Your task to perform on an android device: open app "Google Drive" (install if not already installed) Image 0: 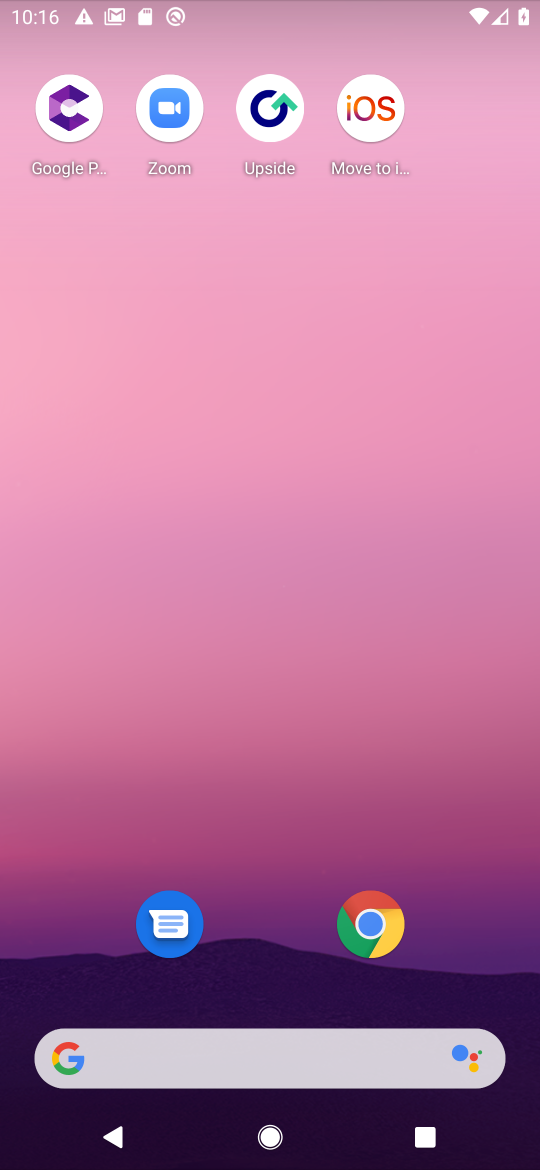
Step 0: drag from (197, 1039) to (139, 0)
Your task to perform on an android device: open app "Google Drive" (install if not already installed) Image 1: 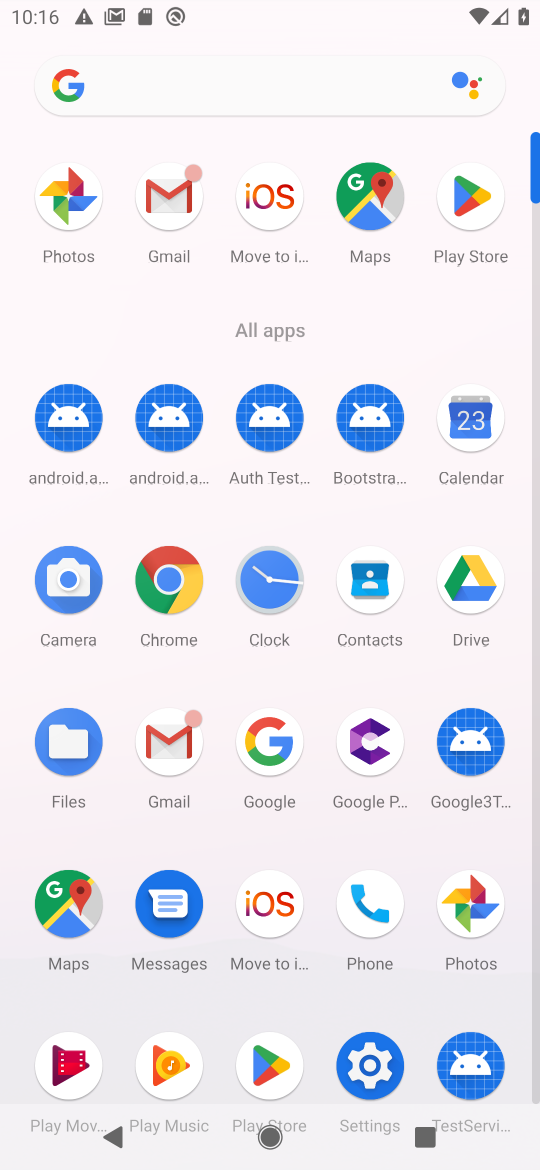
Step 1: click (486, 212)
Your task to perform on an android device: open app "Google Drive" (install if not already installed) Image 2: 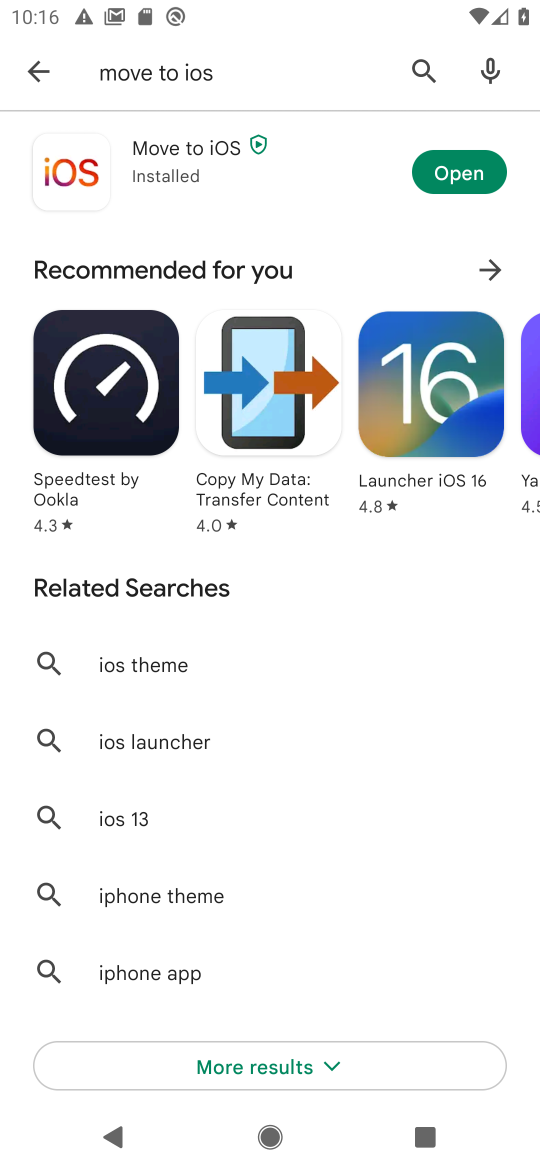
Step 2: click (424, 84)
Your task to perform on an android device: open app "Google Drive" (install if not already installed) Image 3: 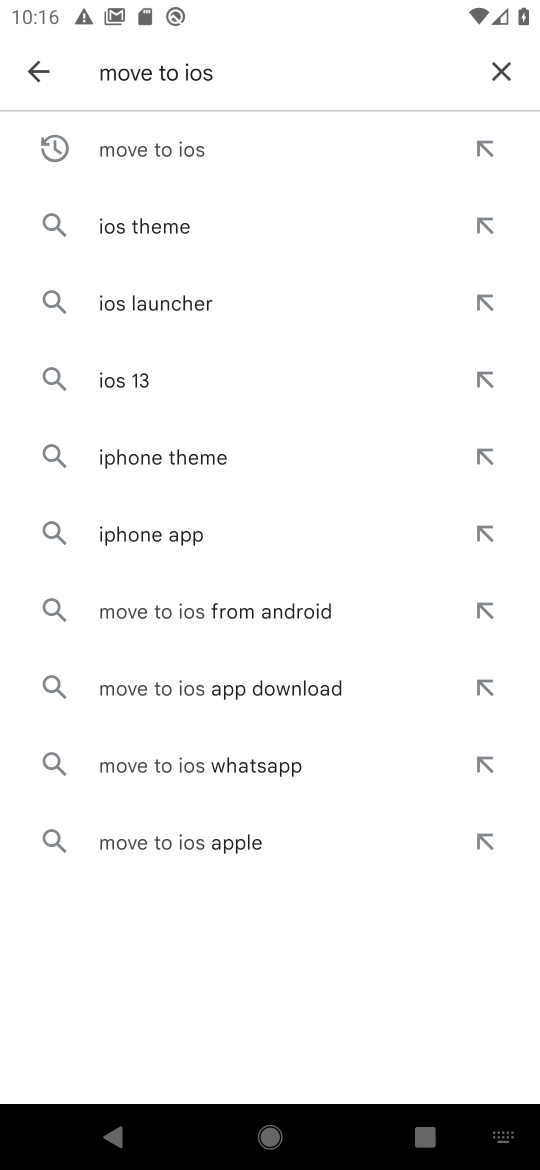
Step 3: click (506, 77)
Your task to perform on an android device: open app "Google Drive" (install if not already installed) Image 4: 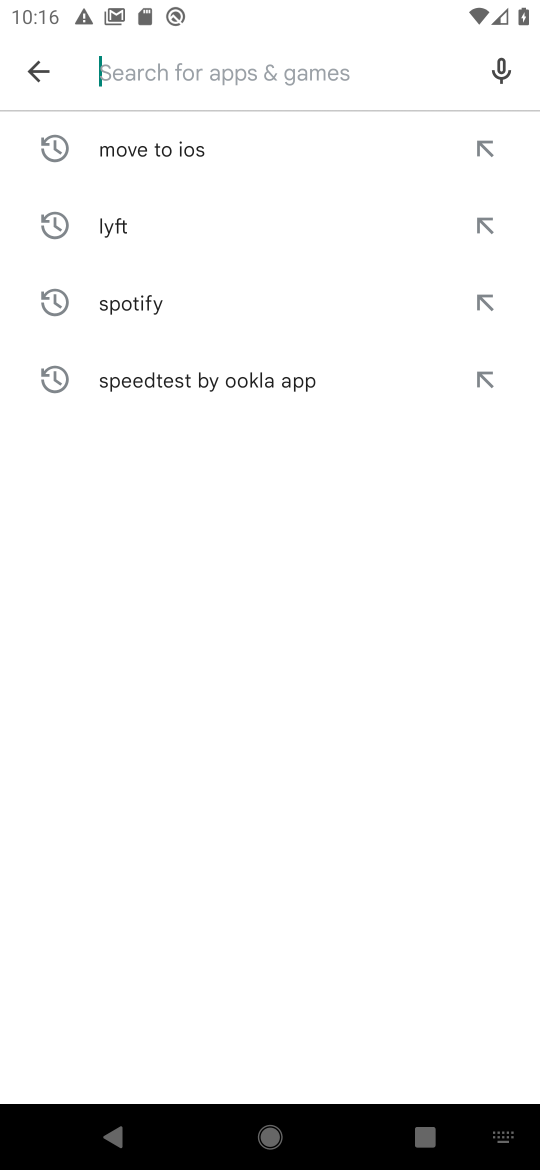
Step 4: type "google drive"
Your task to perform on an android device: open app "Google Drive" (install if not already installed) Image 5: 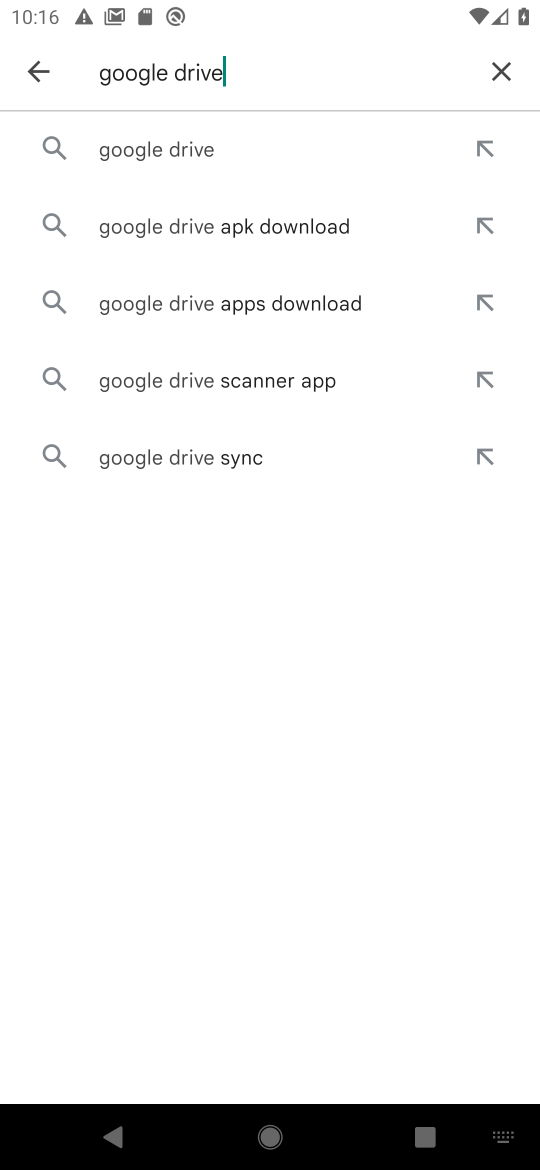
Step 5: click (211, 152)
Your task to perform on an android device: open app "Google Drive" (install if not already installed) Image 6: 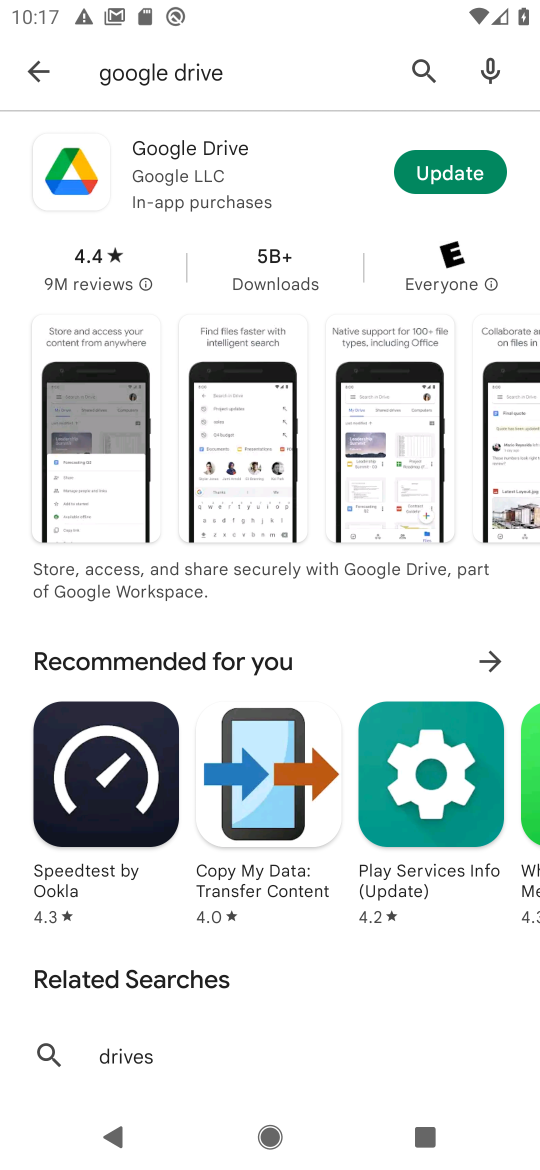
Step 6: click (185, 195)
Your task to perform on an android device: open app "Google Drive" (install if not already installed) Image 7: 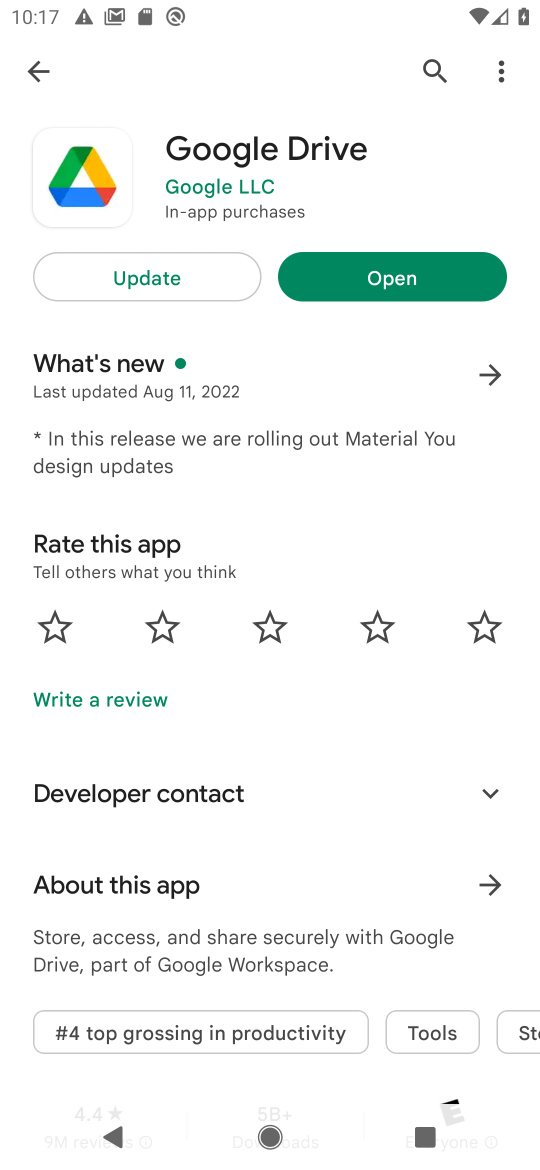
Step 7: click (373, 280)
Your task to perform on an android device: open app "Google Drive" (install if not already installed) Image 8: 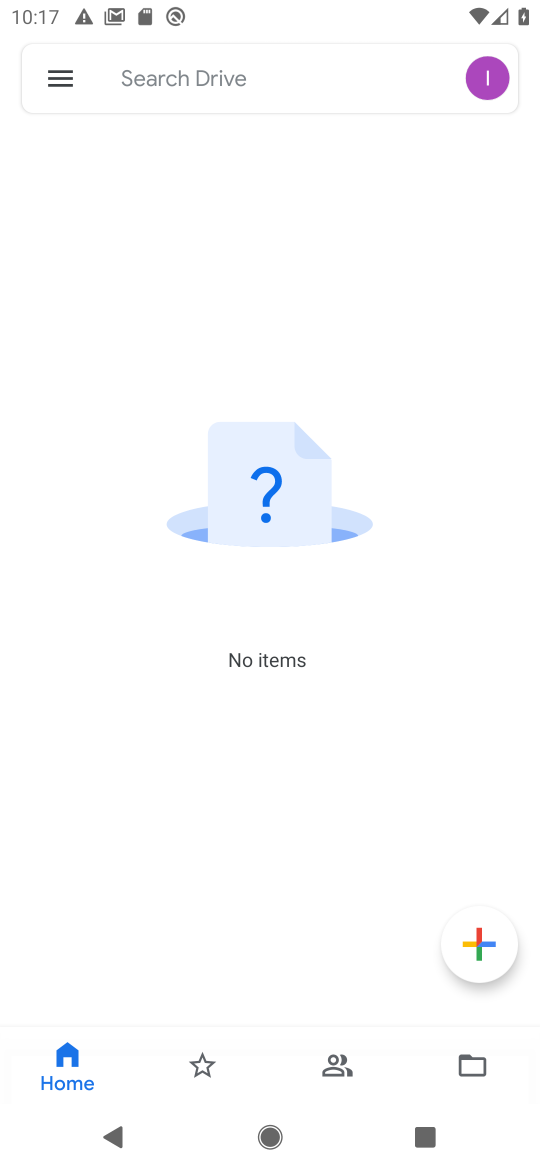
Step 8: task complete